Your task to perform on an android device: clear history in the chrome app Image 0: 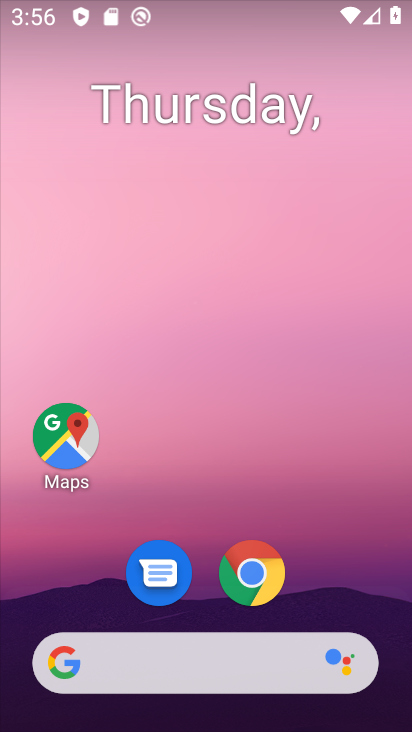
Step 0: click (251, 576)
Your task to perform on an android device: clear history in the chrome app Image 1: 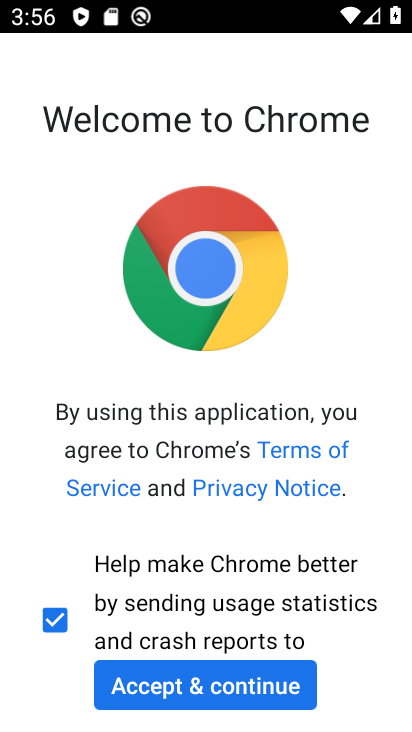
Step 1: click (187, 683)
Your task to perform on an android device: clear history in the chrome app Image 2: 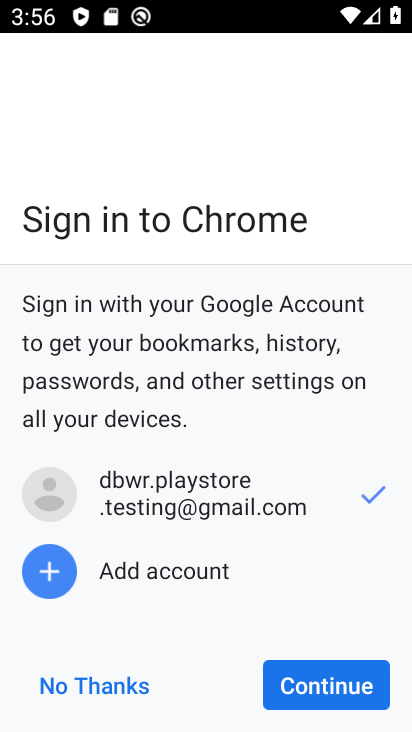
Step 2: click (325, 688)
Your task to perform on an android device: clear history in the chrome app Image 3: 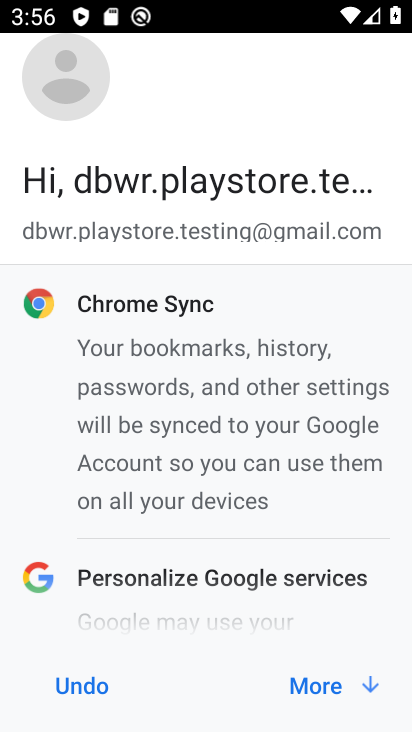
Step 3: click (325, 688)
Your task to perform on an android device: clear history in the chrome app Image 4: 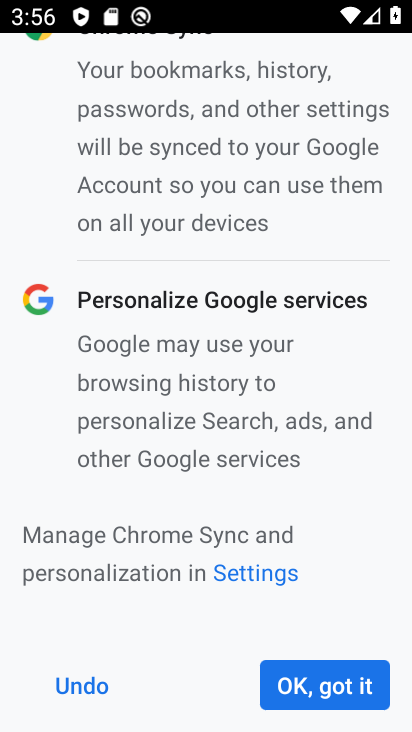
Step 4: click (325, 688)
Your task to perform on an android device: clear history in the chrome app Image 5: 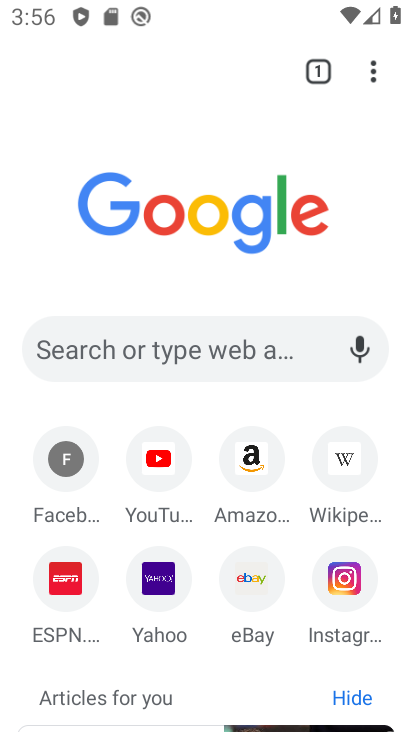
Step 5: click (372, 72)
Your task to perform on an android device: clear history in the chrome app Image 6: 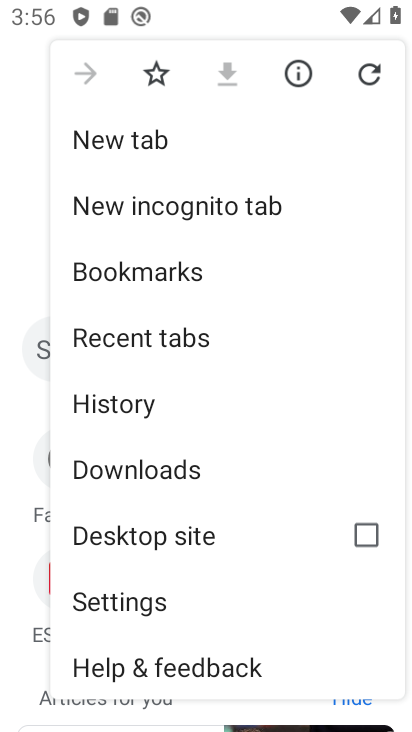
Step 6: click (138, 408)
Your task to perform on an android device: clear history in the chrome app Image 7: 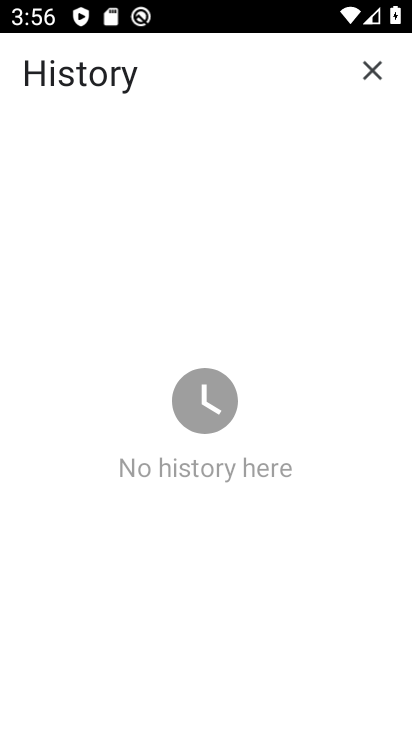
Step 7: task complete